Your task to perform on an android device: clear all cookies in the chrome app Image 0: 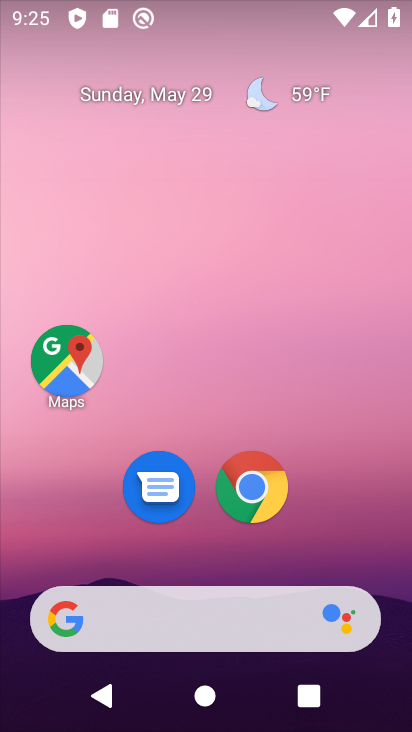
Step 0: click (245, 485)
Your task to perform on an android device: clear all cookies in the chrome app Image 1: 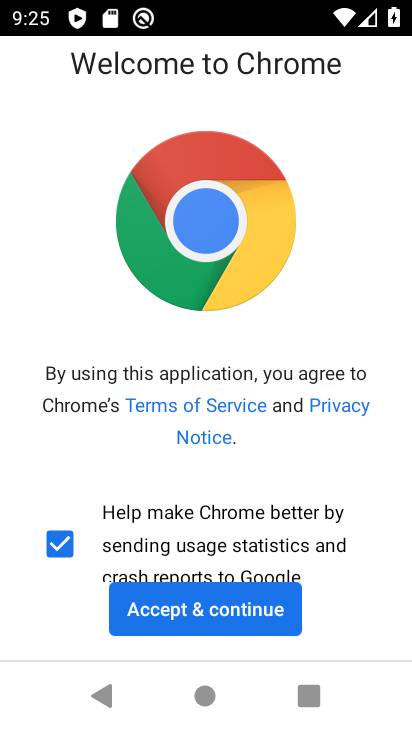
Step 1: click (231, 621)
Your task to perform on an android device: clear all cookies in the chrome app Image 2: 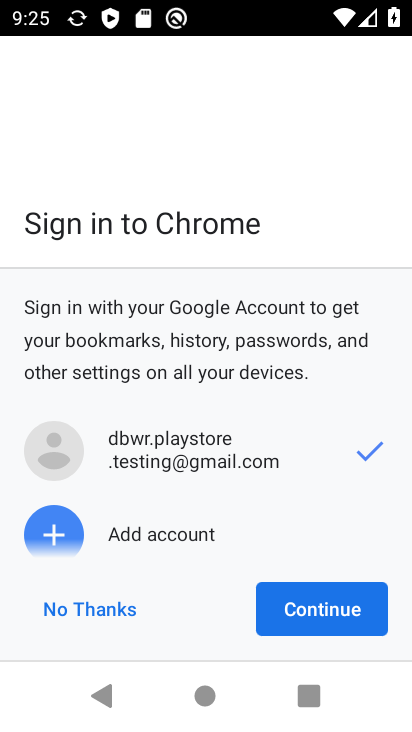
Step 2: click (320, 613)
Your task to perform on an android device: clear all cookies in the chrome app Image 3: 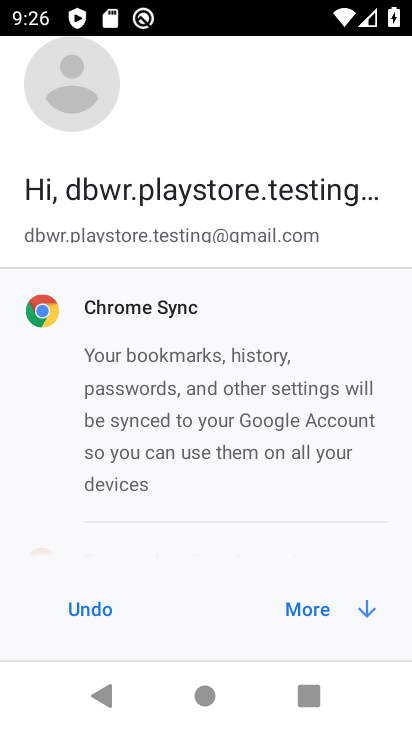
Step 3: click (320, 613)
Your task to perform on an android device: clear all cookies in the chrome app Image 4: 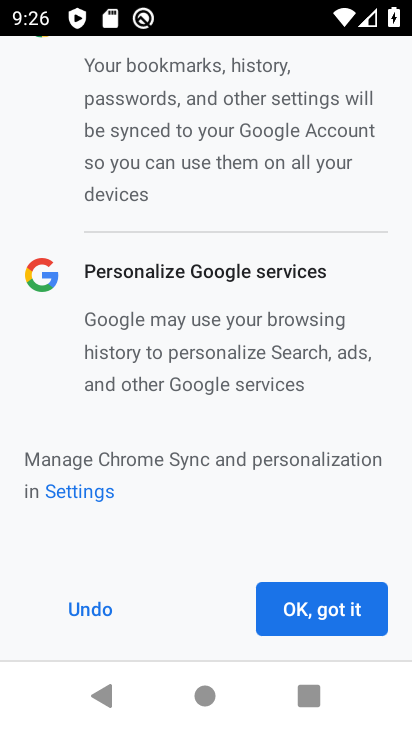
Step 4: click (320, 613)
Your task to perform on an android device: clear all cookies in the chrome app Image 5: 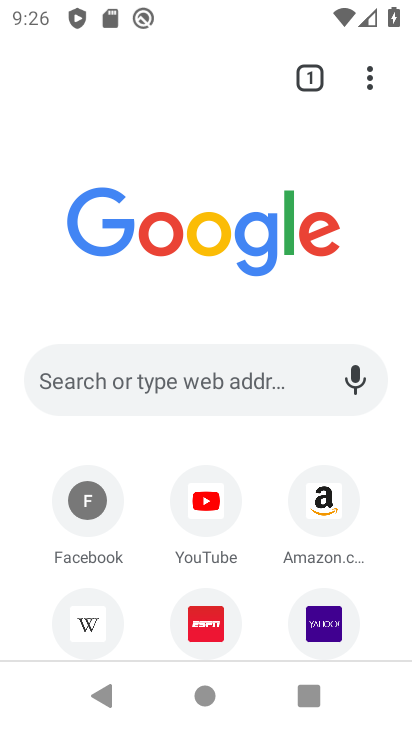
Step 5: click (366, 83)
Your task to perform on an android device: clear all cookies in the chrome app Image 6: 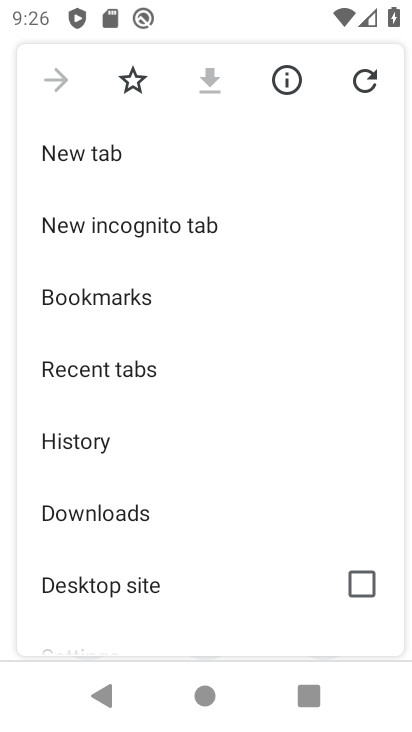
Step 6: drag from (142, 609) to (205, 215)
Your task to perform on an android device: clear all cookies in the chrome app Image 7: 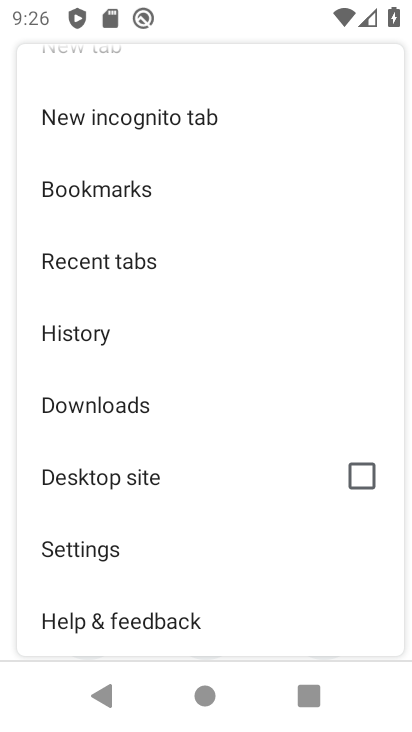
Step 7: click (111, 554)
Your task to perform on an android device: clear all cookies in the chrome app Image 8: 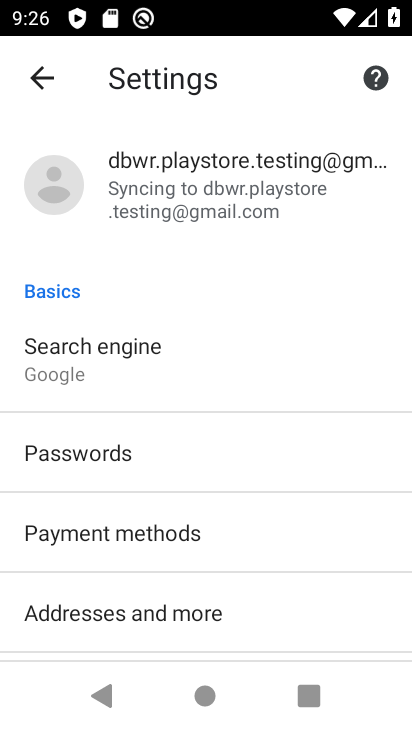
Step 8: drag from (304, 575) to (332, 250)
Your task to perform on an android device: clear all cookies in the chrome app Image 9: 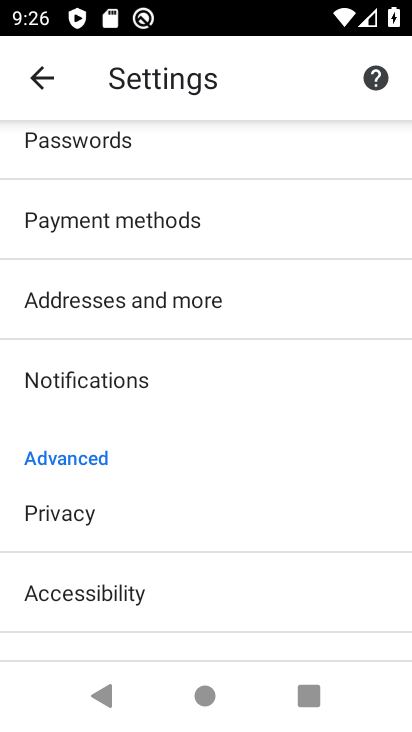
Step 9: drag from (265, 573) to (262, 265)
Your task to perform on an android device: clear all cookies in the chrome app Image 10: 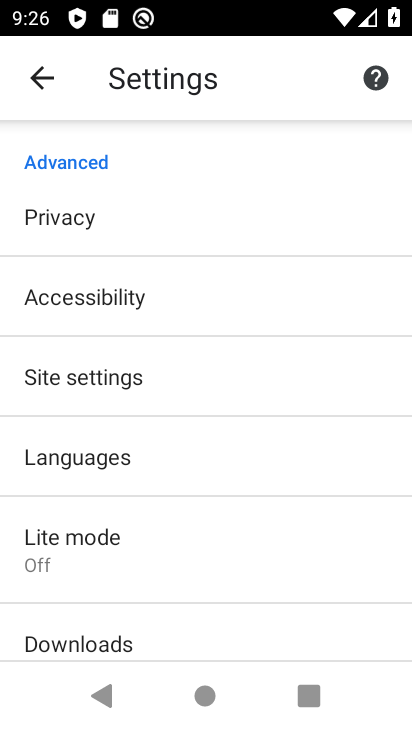
Step 10: drag from (236, 620) to (253, 563)
Your task to perform on an android device: clear all cookies in the chrome app Image 11: 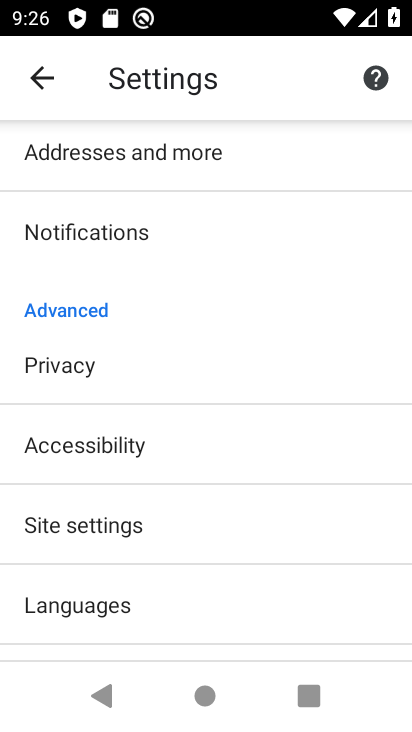
Step 11: click (88, 365)
Your task to perform on an android device: clear all cookies in the chrome app Image 12: 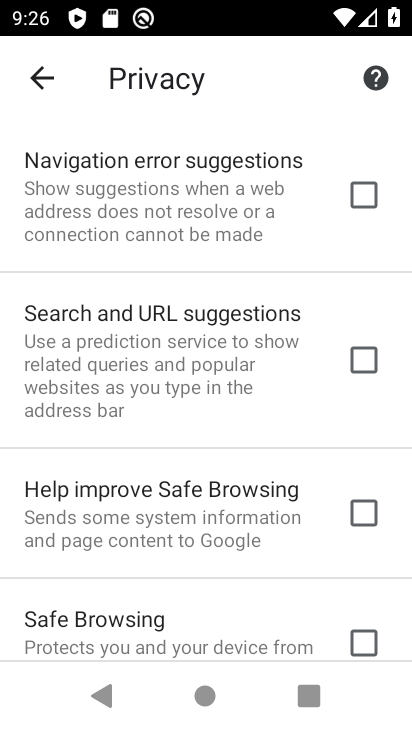
Step 12: drag from (198, 591) to (224, 230)
Your task to perform on an android device: clear all cookies in the chrome app Image 13: 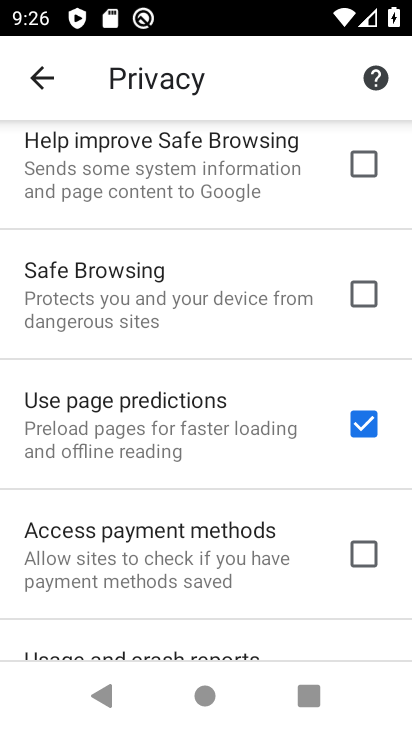
Step 13: drag from (209, 631) to (279, 283)
Your task to perform on an android device: clear all cookies in the chrome app Image 14: 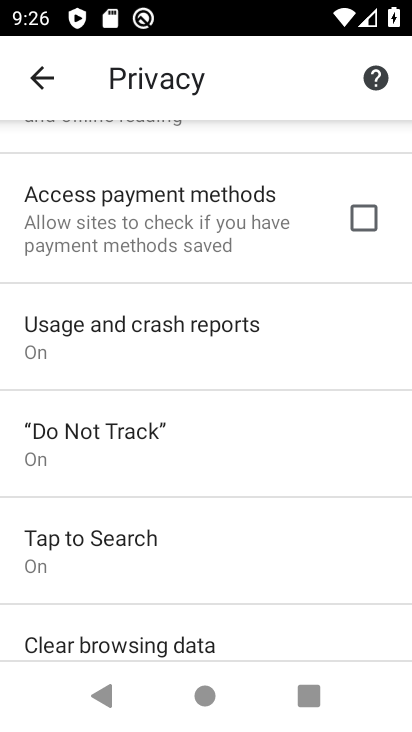
Step 14: drag from (175, 592) to (211, 230)
Your task to perform on an android device: clear all cookies in the chrome app Image 15: 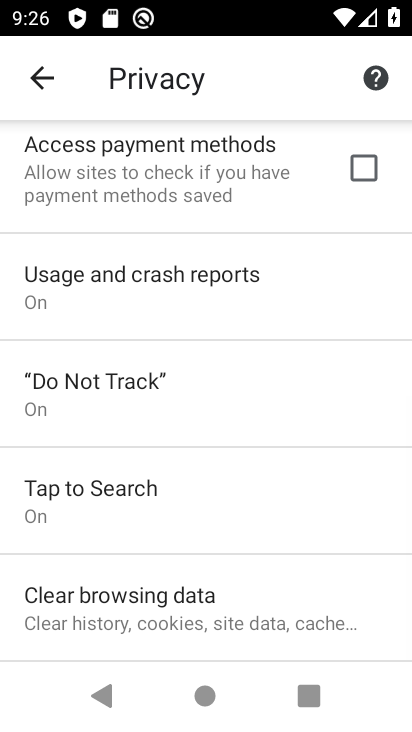
Step 15: click (209, 613)
Your task to perform on an android device: clear all cookies in the chrome app Image 16: 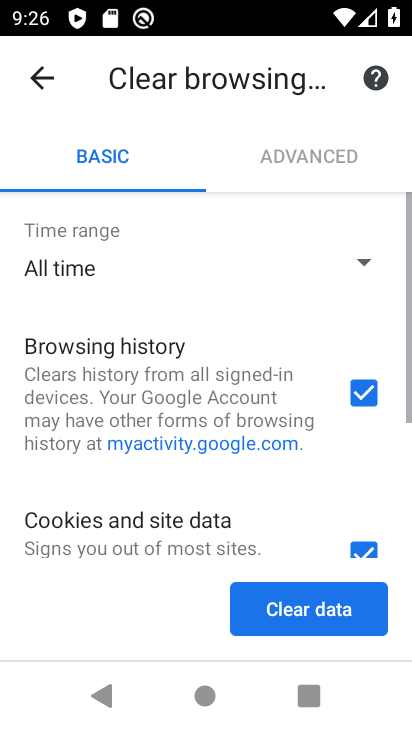
Step 16: click (373, 389)
Your task to perform on an android device: clear all cookies in the chrome app Image 17: 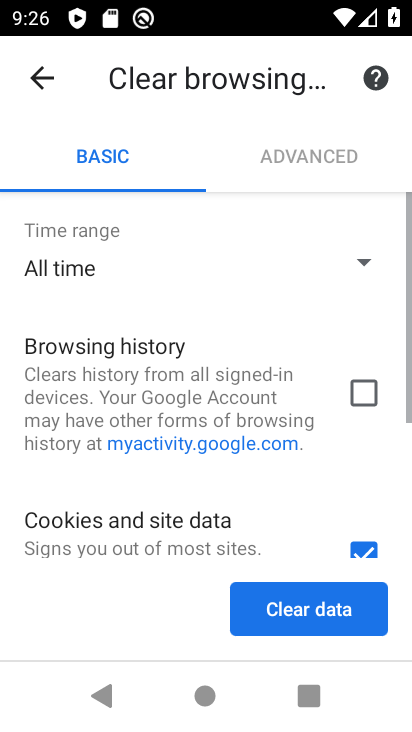
Step 17: drag from (314, 447) to (355, 197)
Your task to perform on an android device: clear all cookies in the chrome app Image 18: 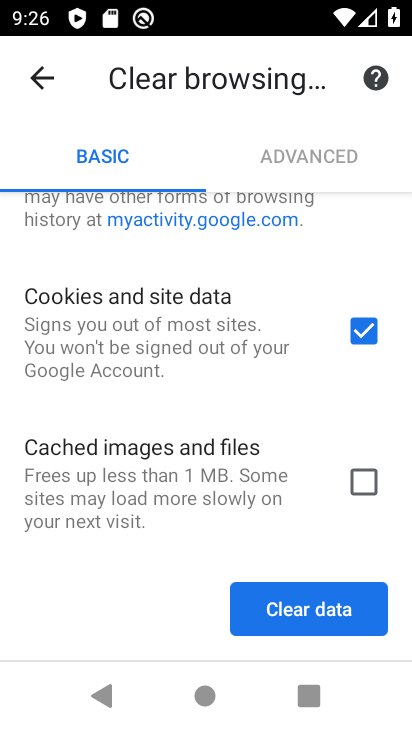
Step 18: click (311, 618)
Your task to perform on an android device: clear all cookies in the chrome app Image 19: 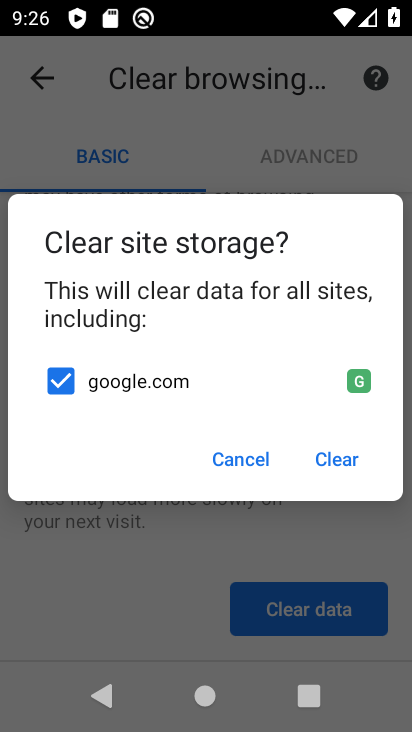
Step 19: click (353, 461)
Your task to perform on an android device: clear all cookies in the chrome app Image 20: 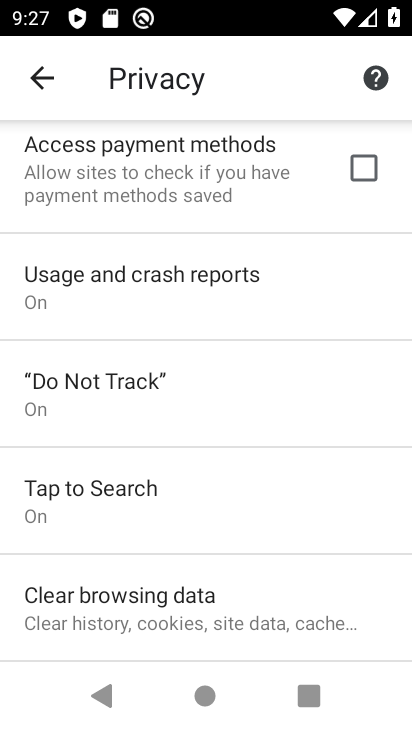
Step 20: task complete